Your task to perform on an android device: turn off location history Image 0: 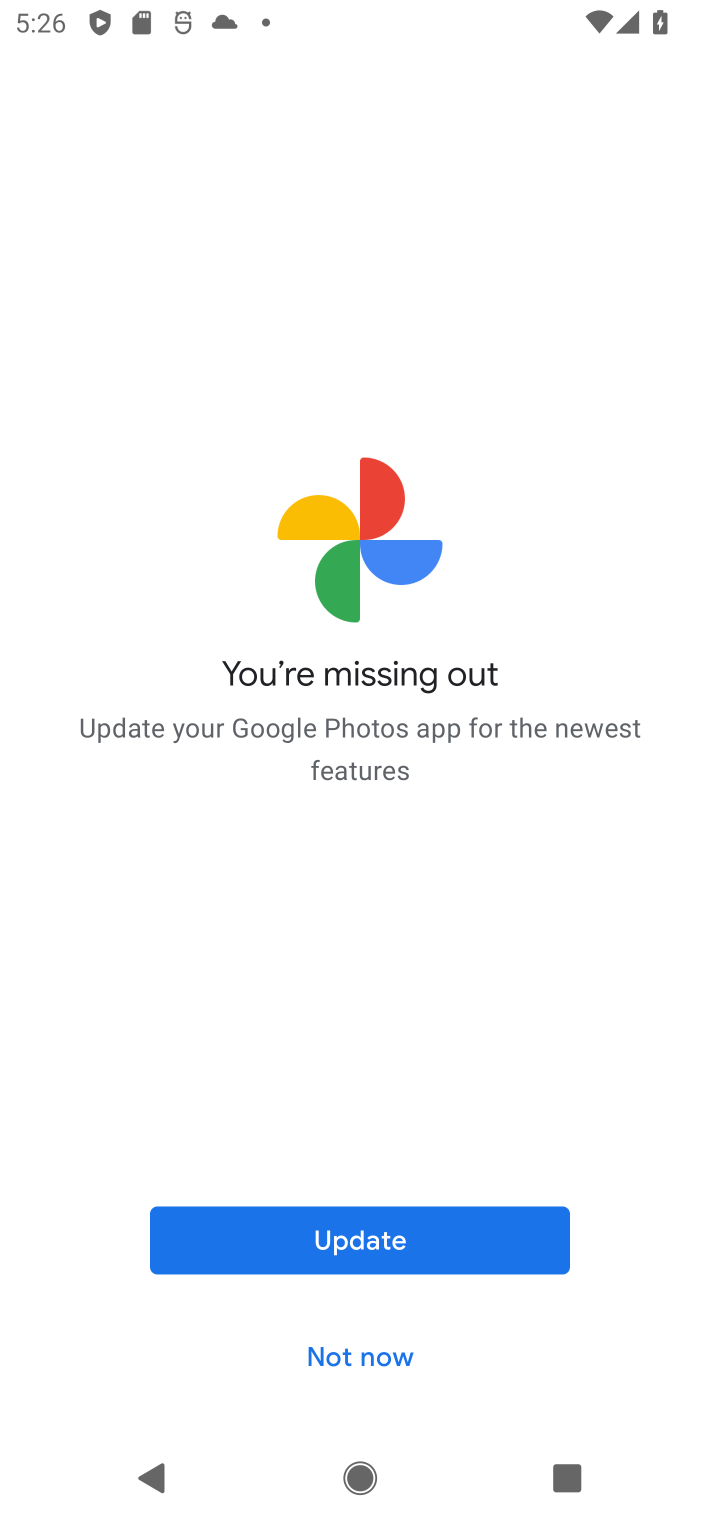
Step 0: press home button
Your task to perform on an android device: turn off location history Image 1: 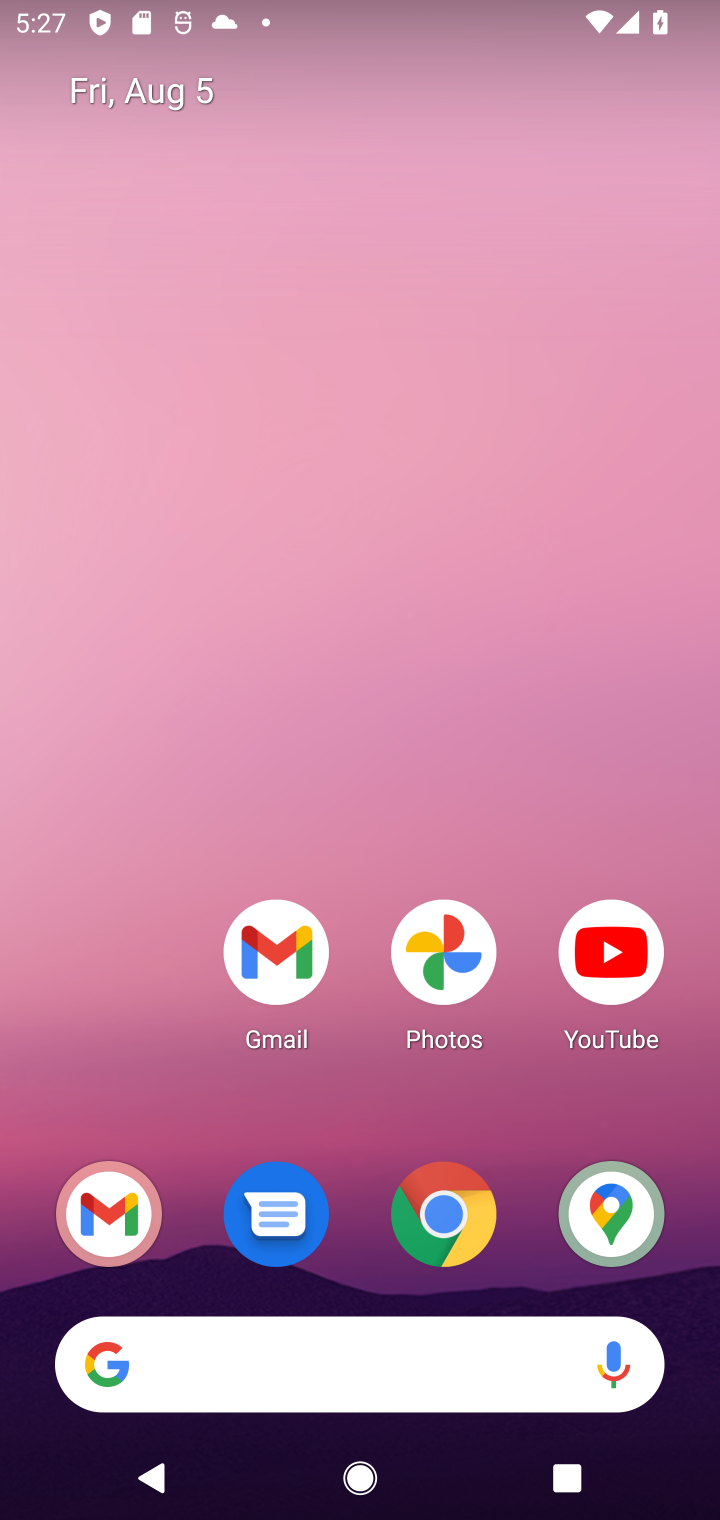
Step 1: drag from (457, 583) to (471, 0)
Your task to perform on an android device: turn off location history Image 2: 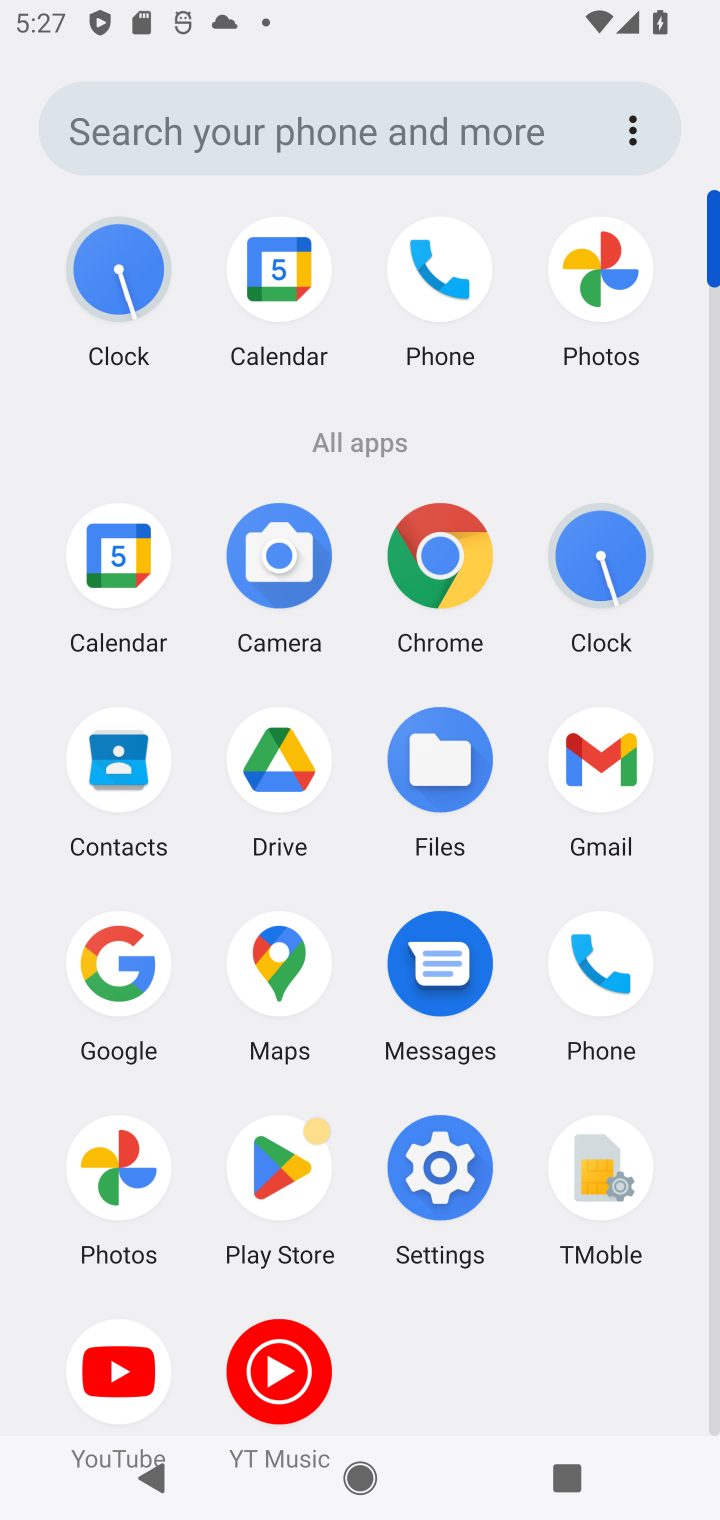
Step 2: click (434, 1157)
Your task to perform on an android device: turn off location history Image 3: 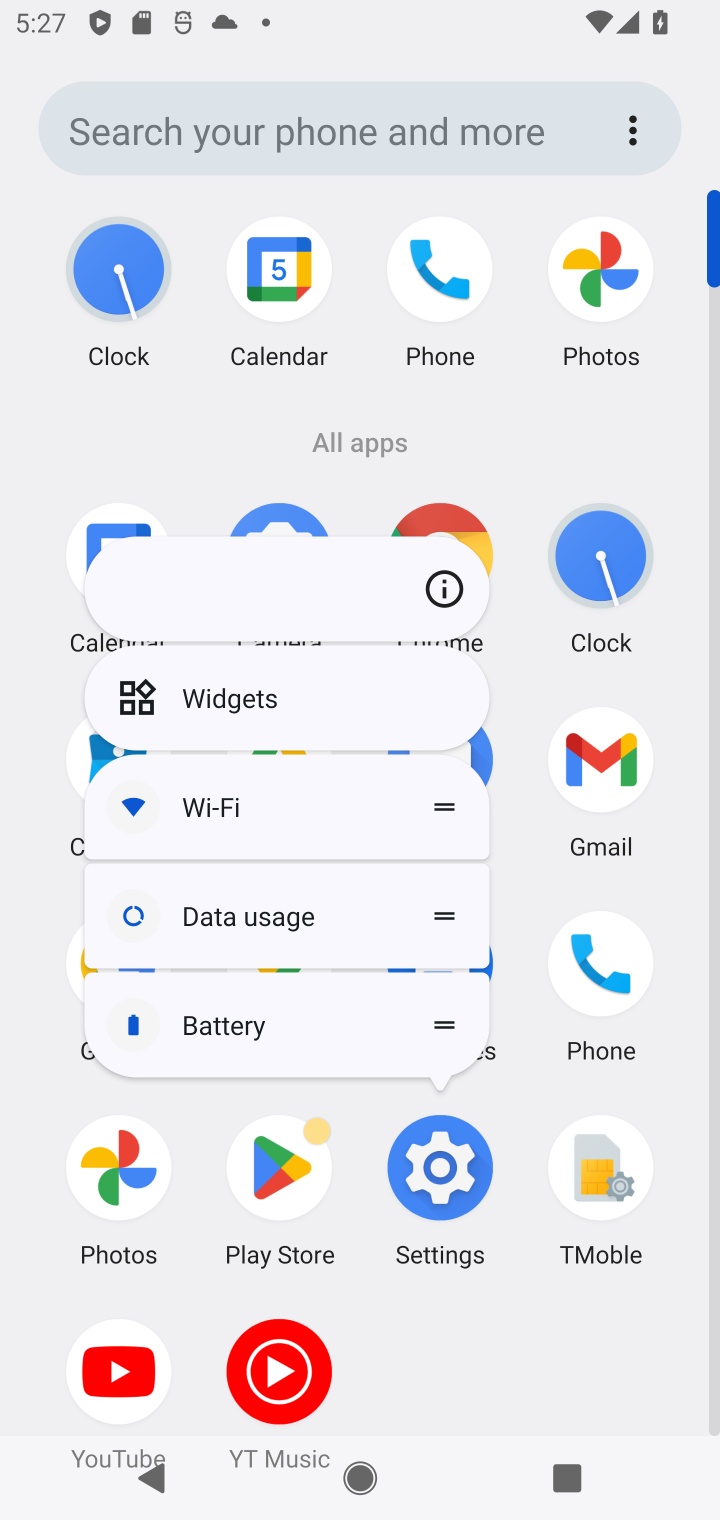
Step 3: click (434, 1160)
Your task to perform on an android device: turn off location history Image 4: 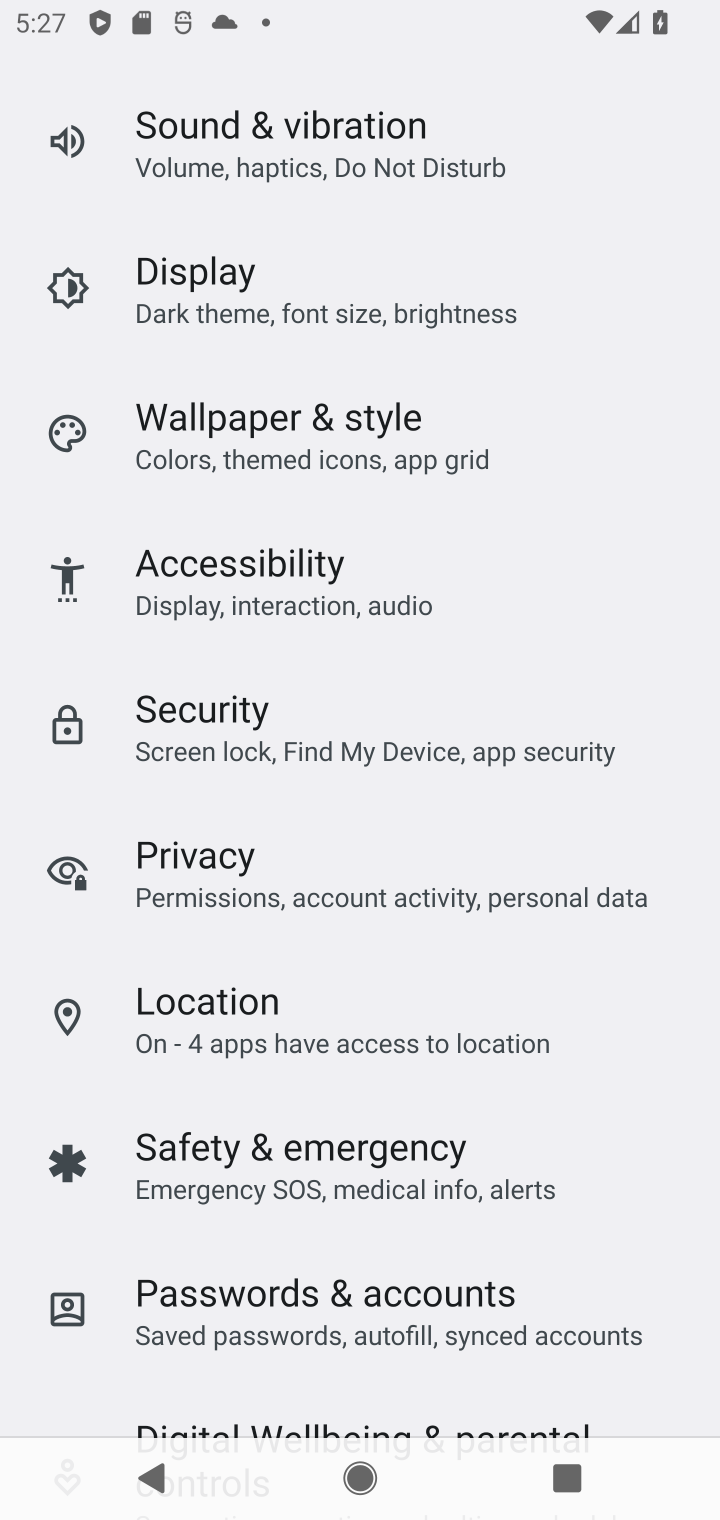
Step 4: drag from (387, 1221) to (344, 170)
Your task to perform on an android device: turn off location history Image 5: 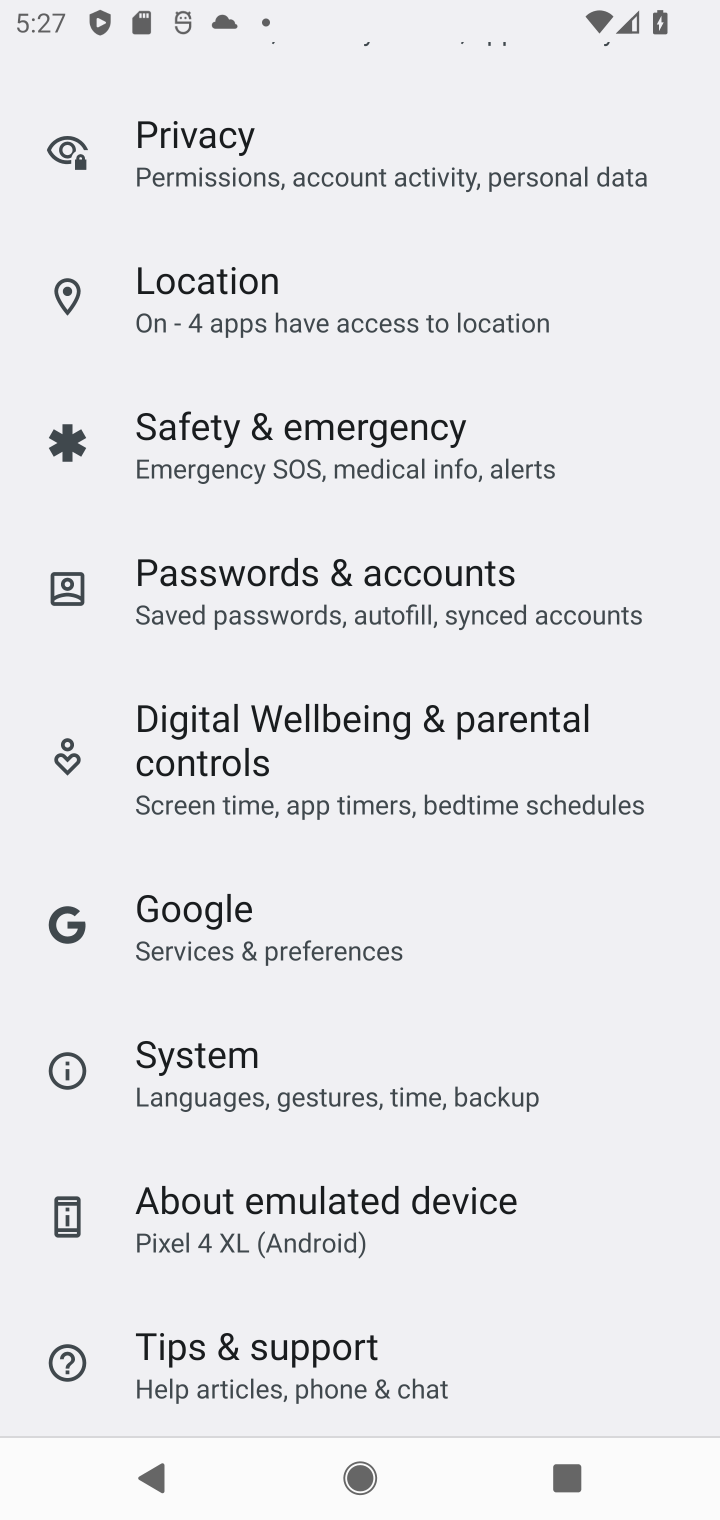
Step 5: drag from (397, 242) to (431, 1348)
Your task to perform on an android device: turn off location history Image 6: 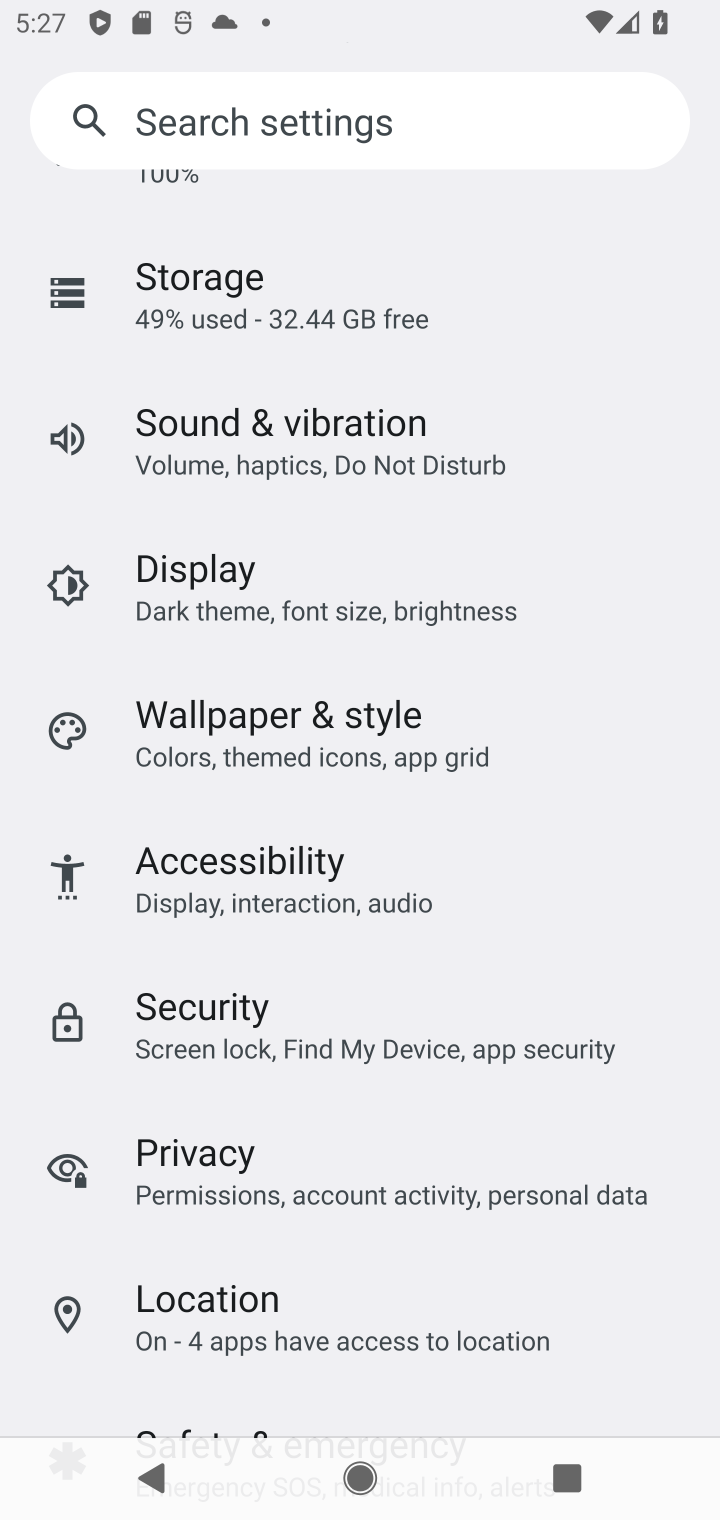
Step 6: click (422, 1292)
Your task to perform on an android device: turn off location history Image 7: 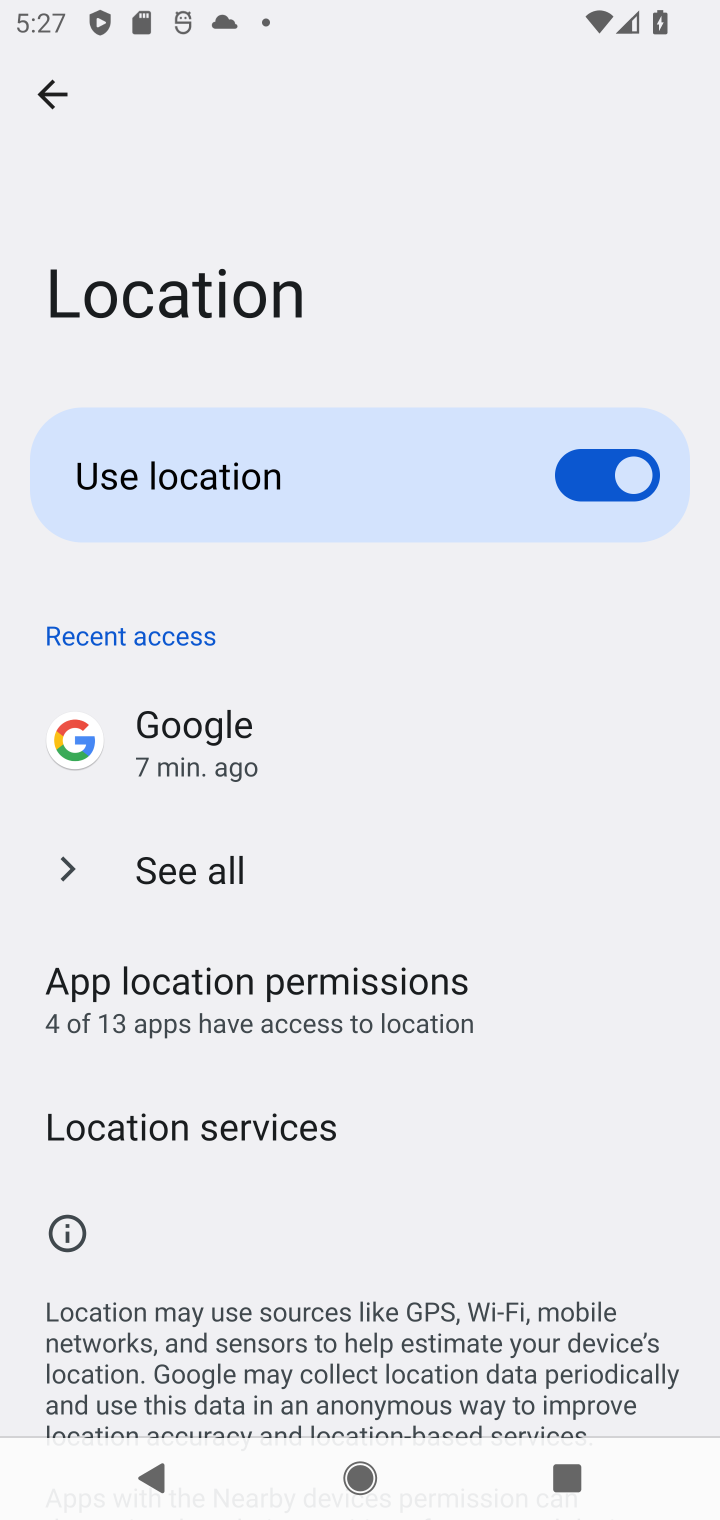
Step 7: click (260, 1130)
Your task to perform on an android device: turn off location history Image 8: 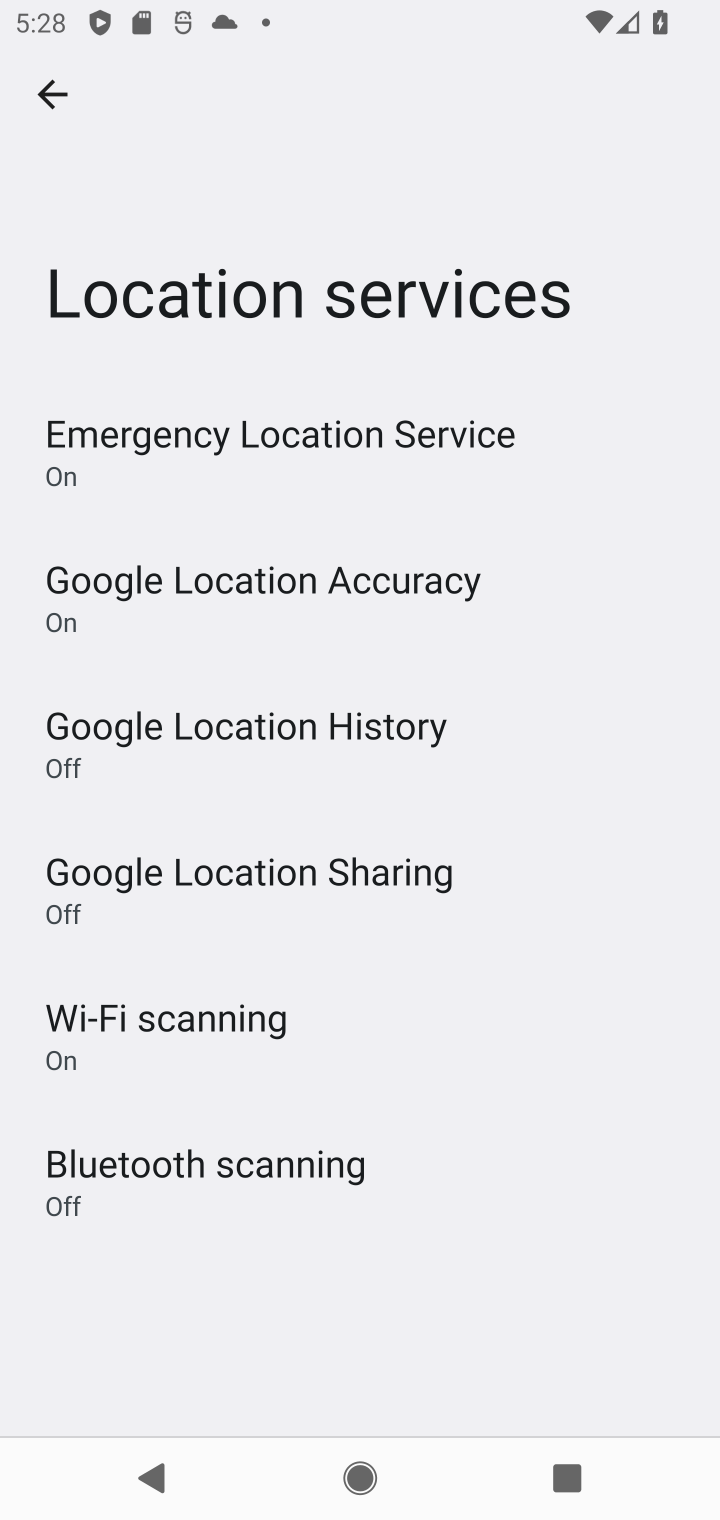
Step 8: click (331, 736)
Your task to perform on an android device: turn off location history Image 9: 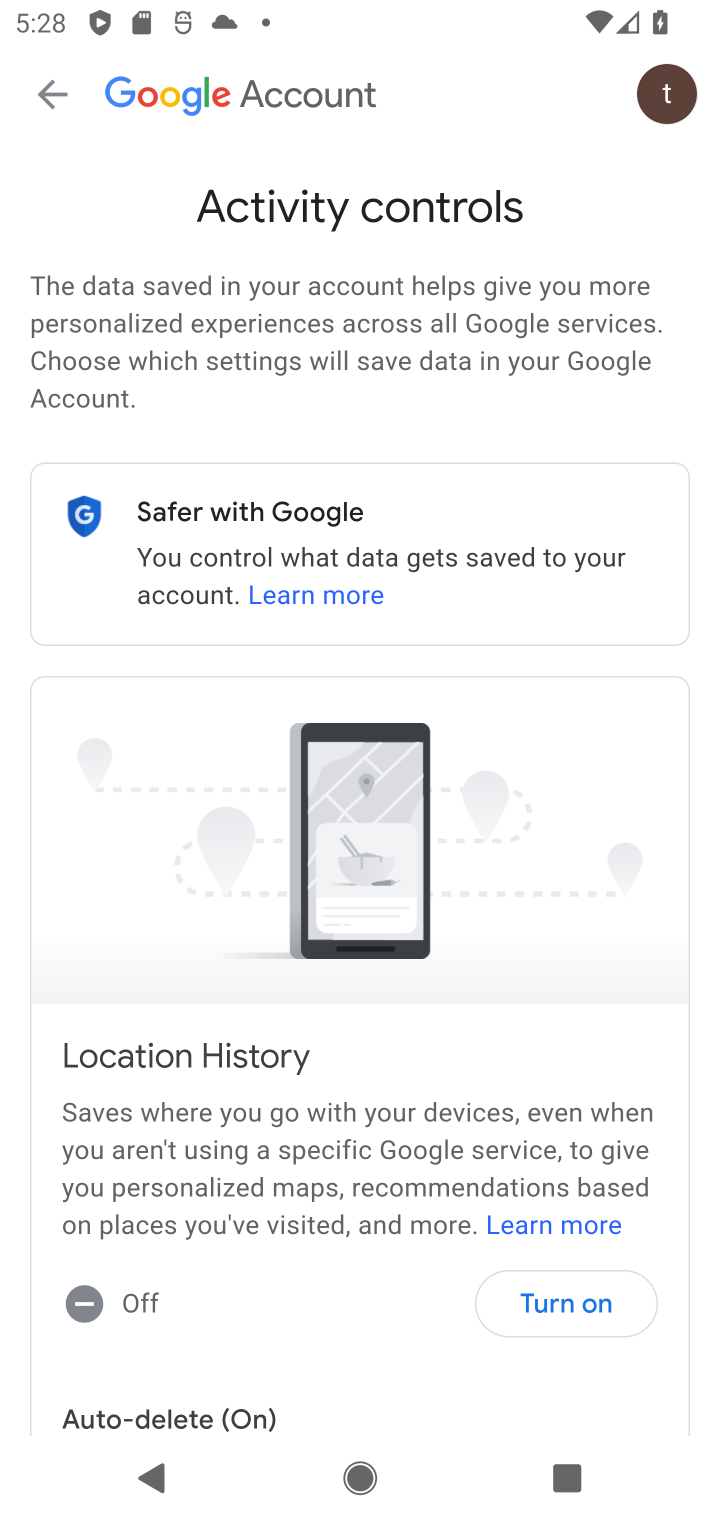
Step 9: task complete